Your task to perform on an android device: Open internet settings Image 0: 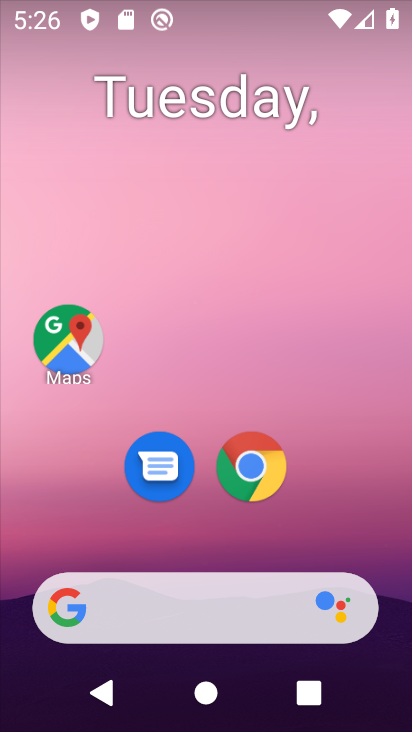
Step 0: press home button
Your task to perform on an android device: Open internet settings Image 1: 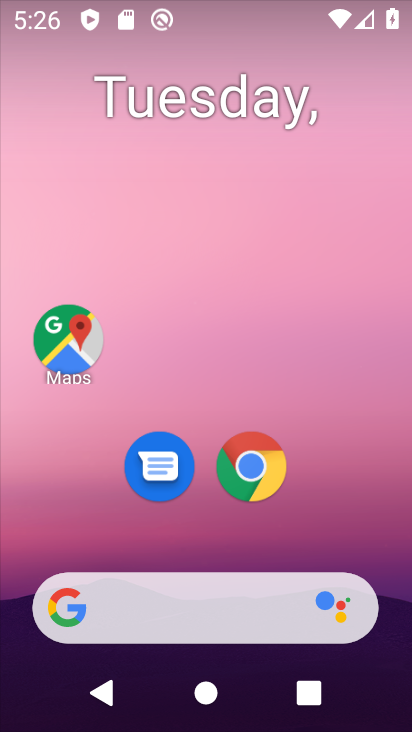
Step 1: drag from (404, 711) to (411, 124)
Your task to perform on an android device: Open internet settings Image 2: 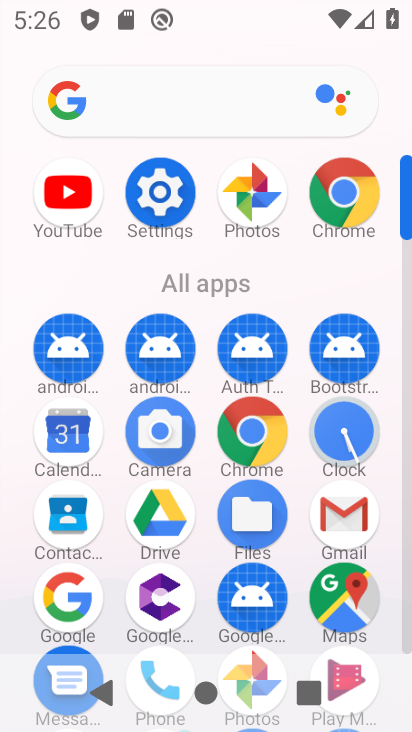
Step 2: click (407, 640)
Your task to perform on an android device: Open internet settings Image 3: 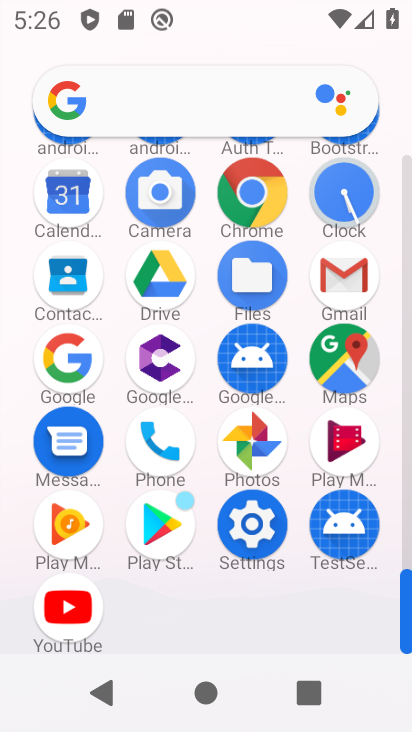
Step 3: click (248, 523)
Your task to perform on an android device: Open internet settings Image 4: 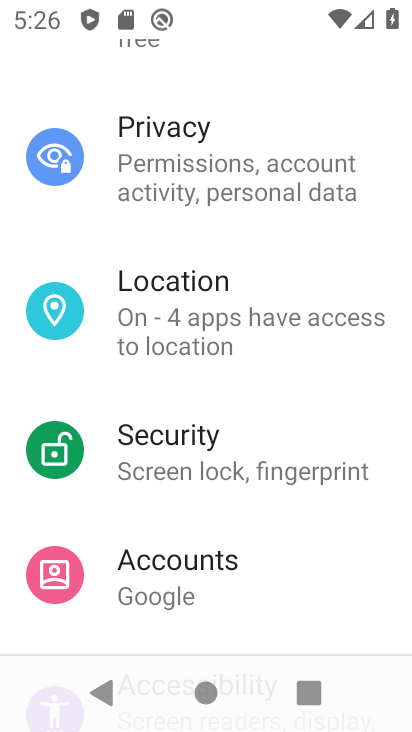
Step 4: drag from (281, 121) to (271, 727)
Your task to perform on an android device: Open internet settings Image 5: 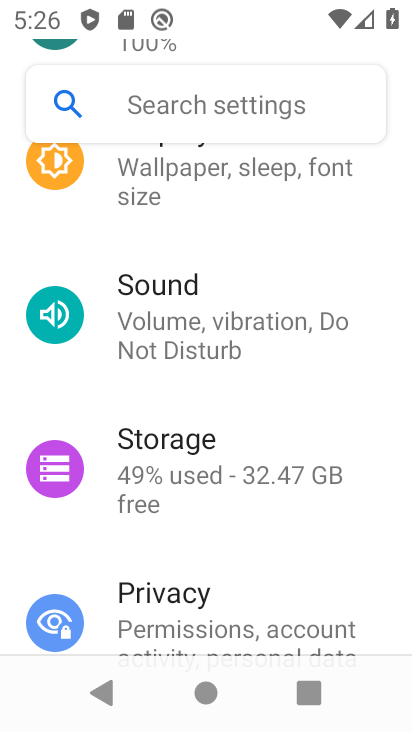
Step 5: drag from (238, 211) to (286, 730)
Your task to perform on an android device: Open internet settings Image 6: 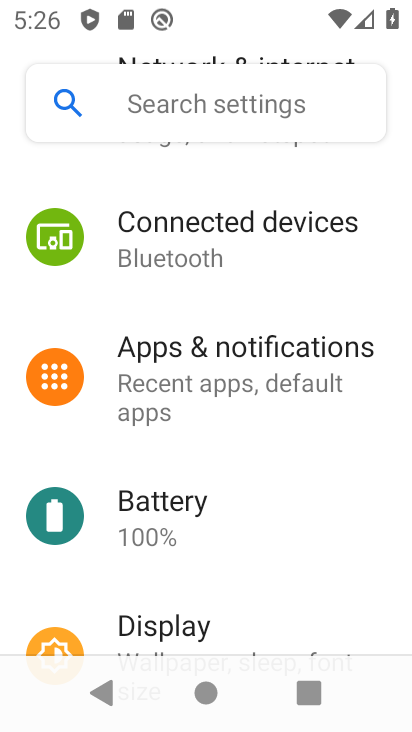
Step 6: drag from (268, 203) to (209, 706)
Your task to perform on an android device: Open internet settings Image 7: 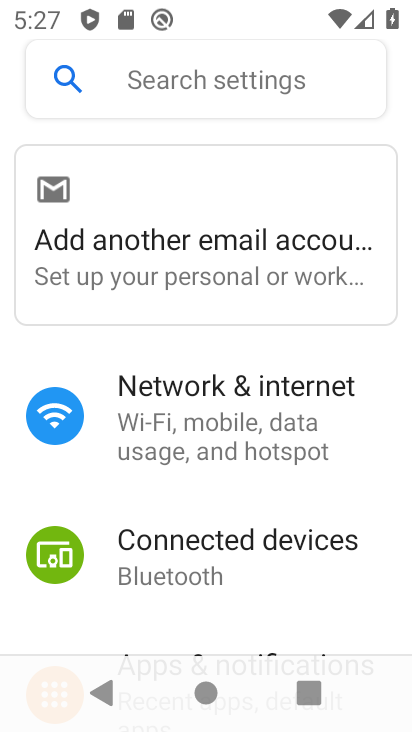
Step 7: click (204, 437)
Your task to perform on an android device: Open internet settings Image 8: 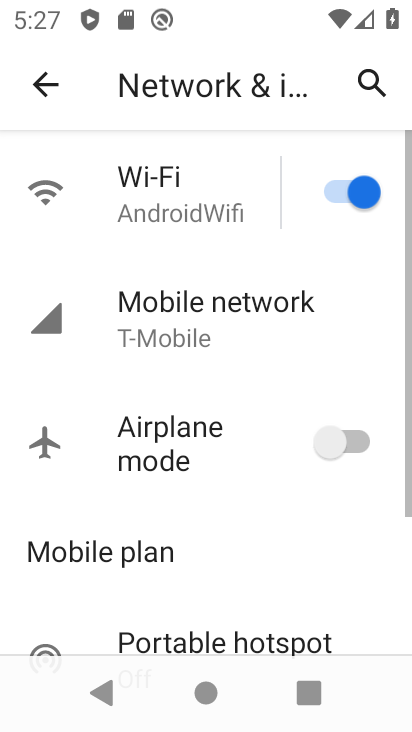
Step 8: task complete